Your task to perform on an android device: toggle priority inbox in the gmail app Image 0: 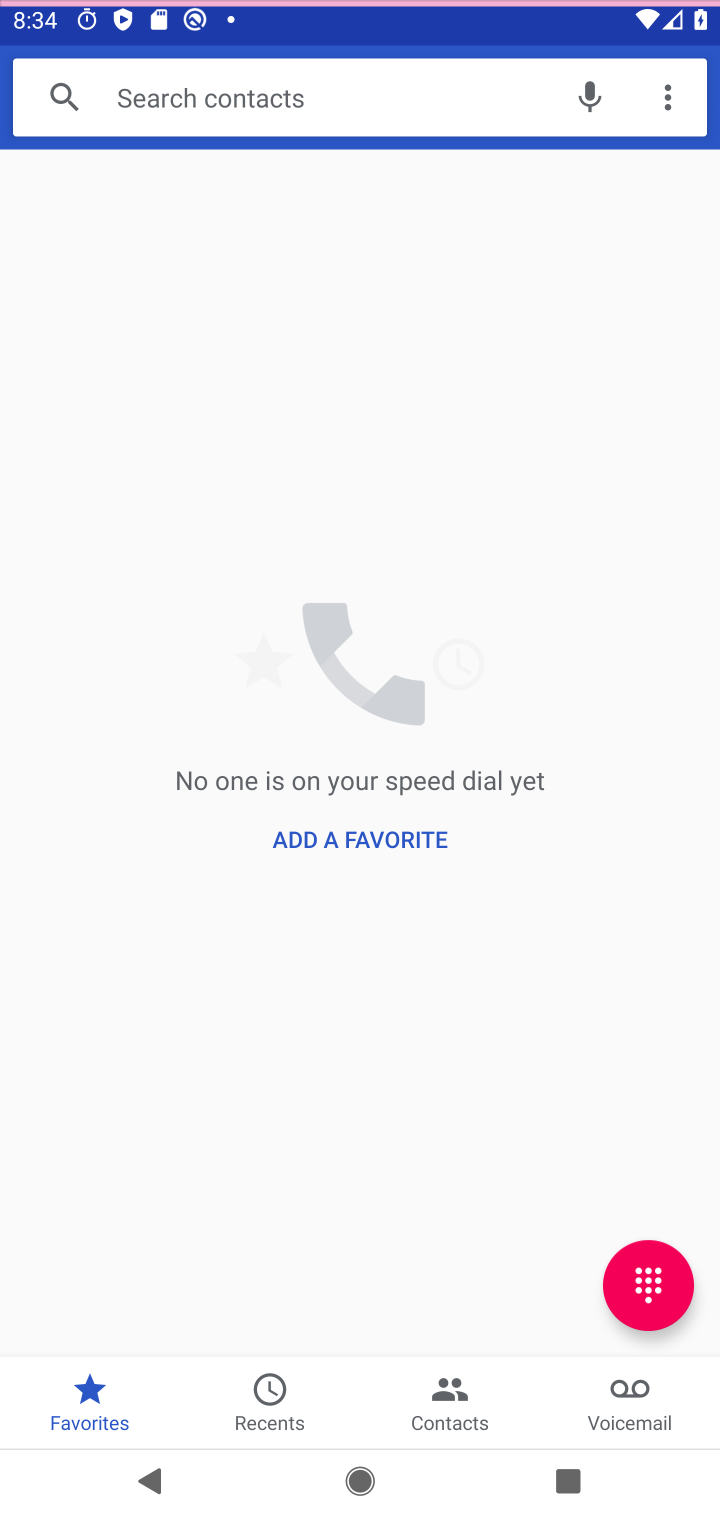
Step 0: press home button
Your task to perform on an android device: toggle priority inbox in the gmail app Image 1: 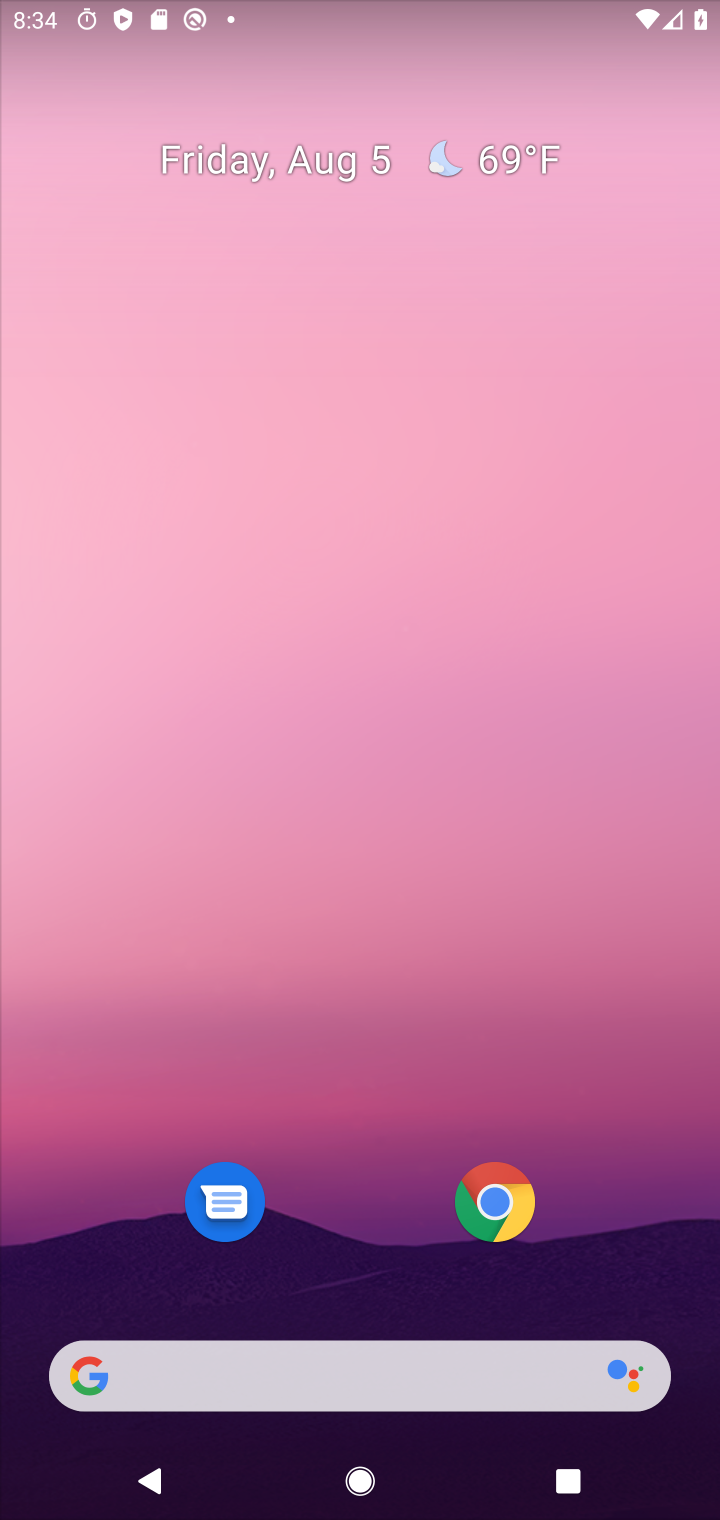
Step 1: drag from (340, 1121) to (354, 78)
Your task to perform on an android device: toggle priority inbox in the gmail app Image 2: 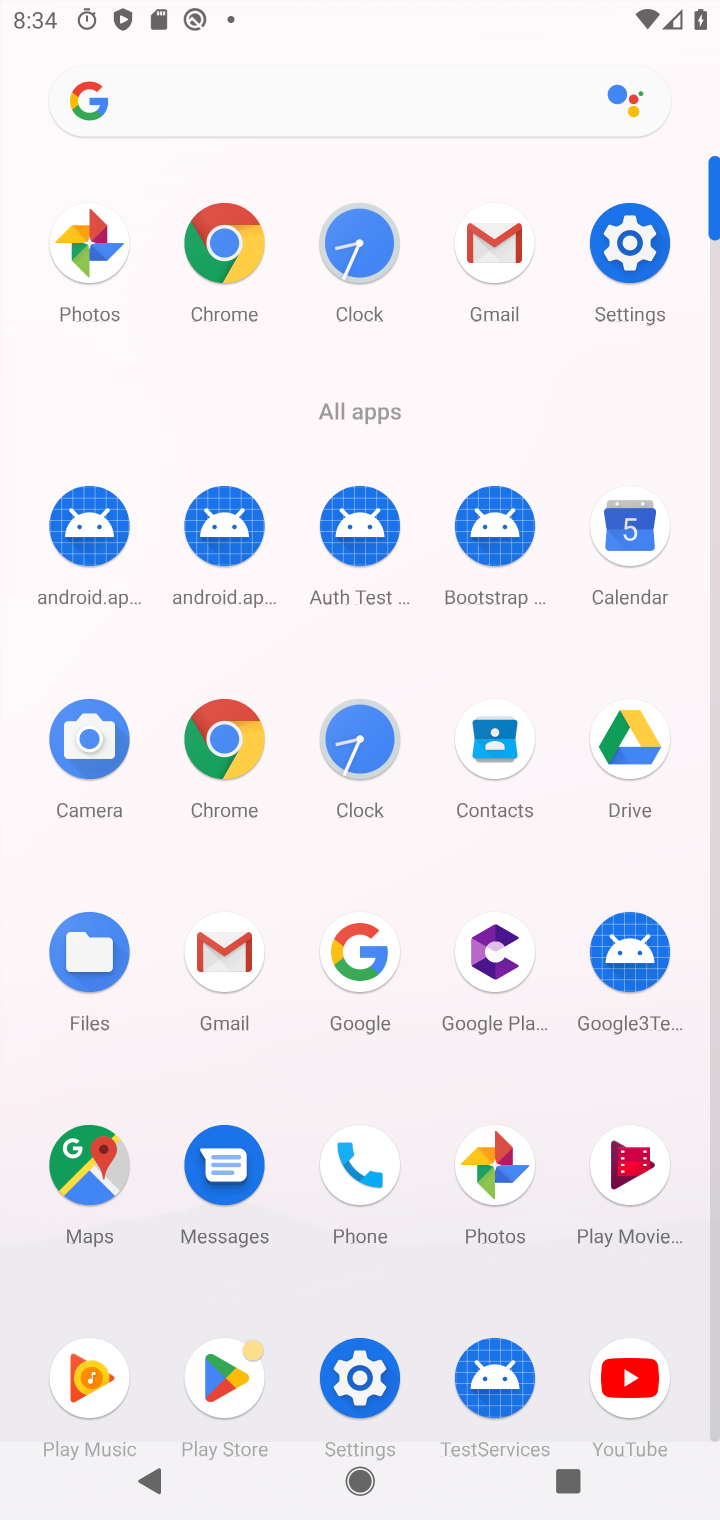
Step 2: click (213, 956)
Your task to perform on an android device: toggle priority inbox in the gmail app Image 3: 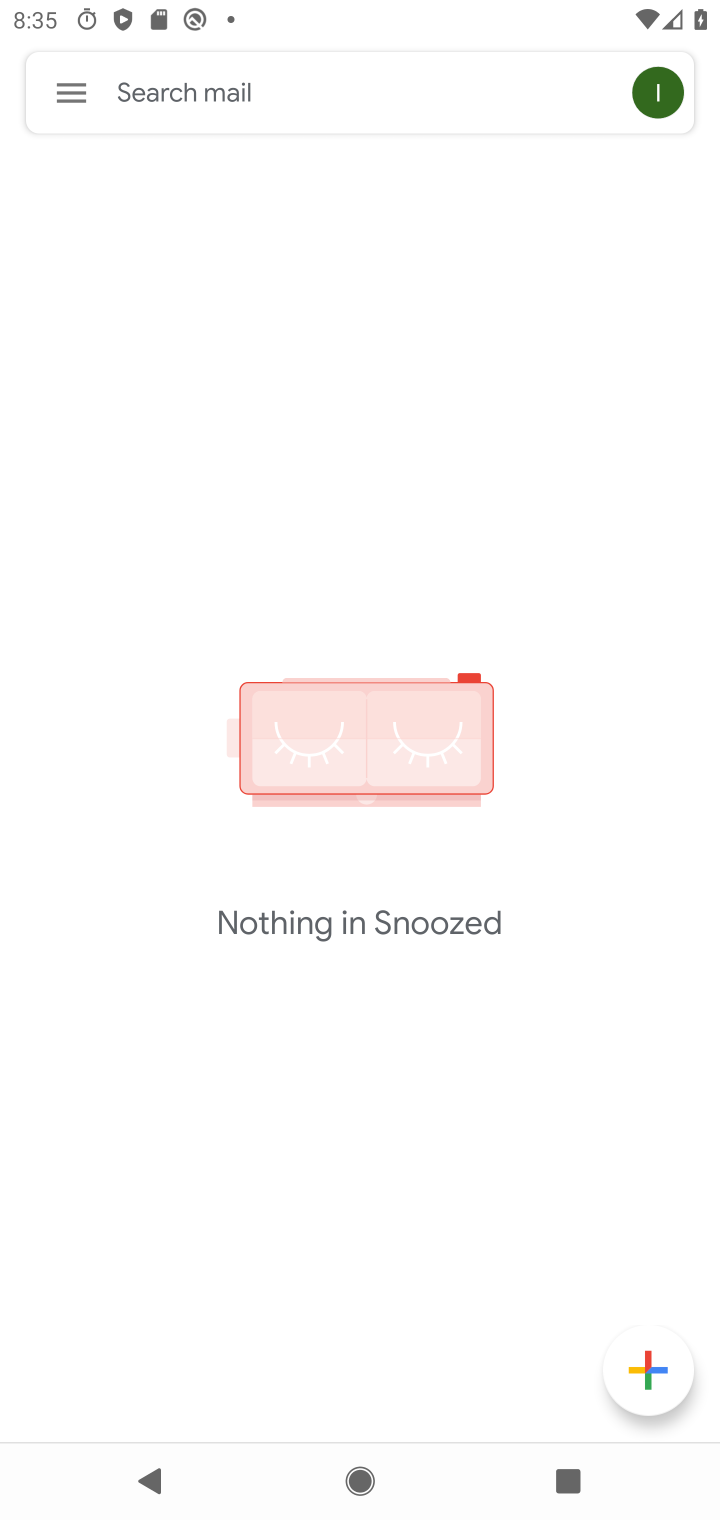
Step 3: click (80, 95)
Your task to perform on an android device: toggle priority inbox in the gmail app Image 4: 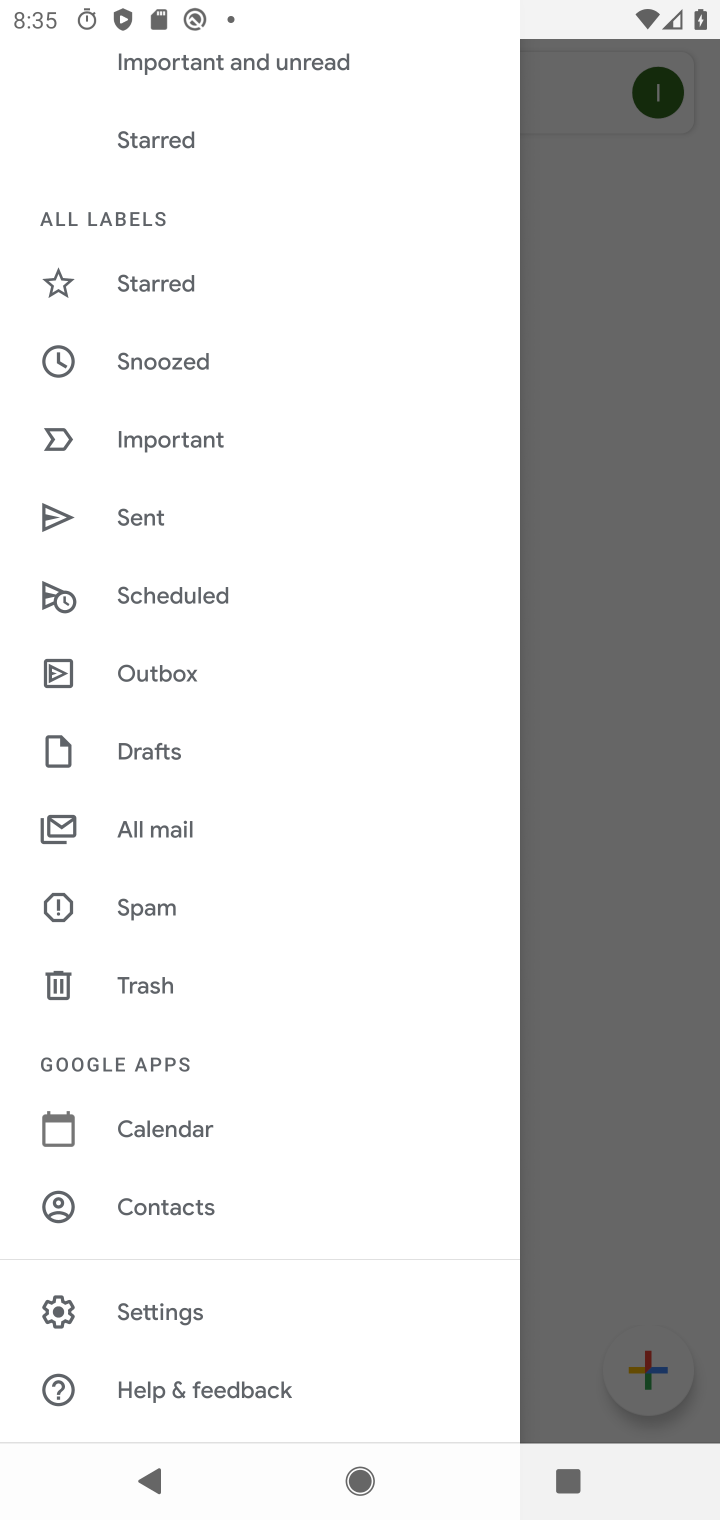
Step 4: click (185, 1282)
Your task to perform on an android device: toggle priority inbox in the gmail app Image 5: 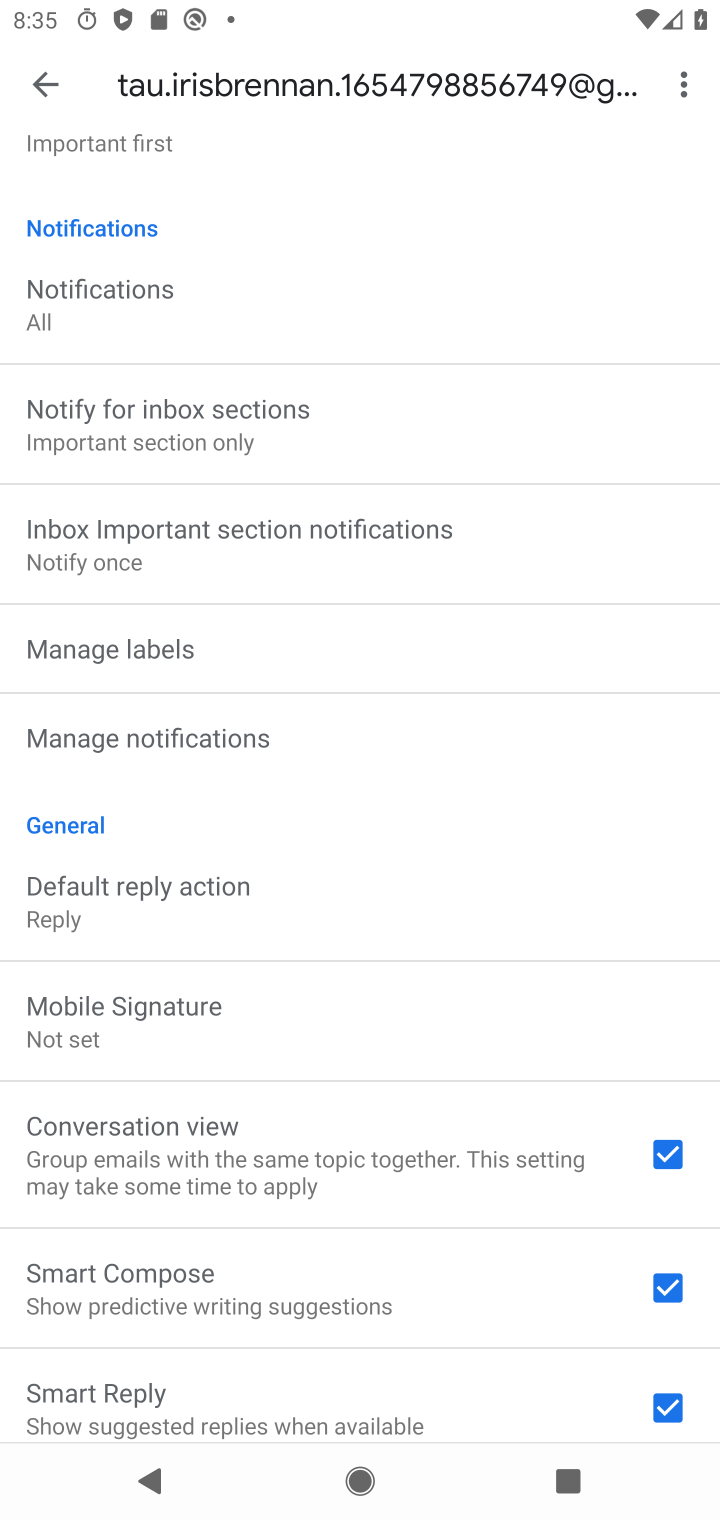
Step 5: drag from (185, 282) to (248, 643)
Your task to perform on an android device: toggle priority inbox in the gmail app Image 6: 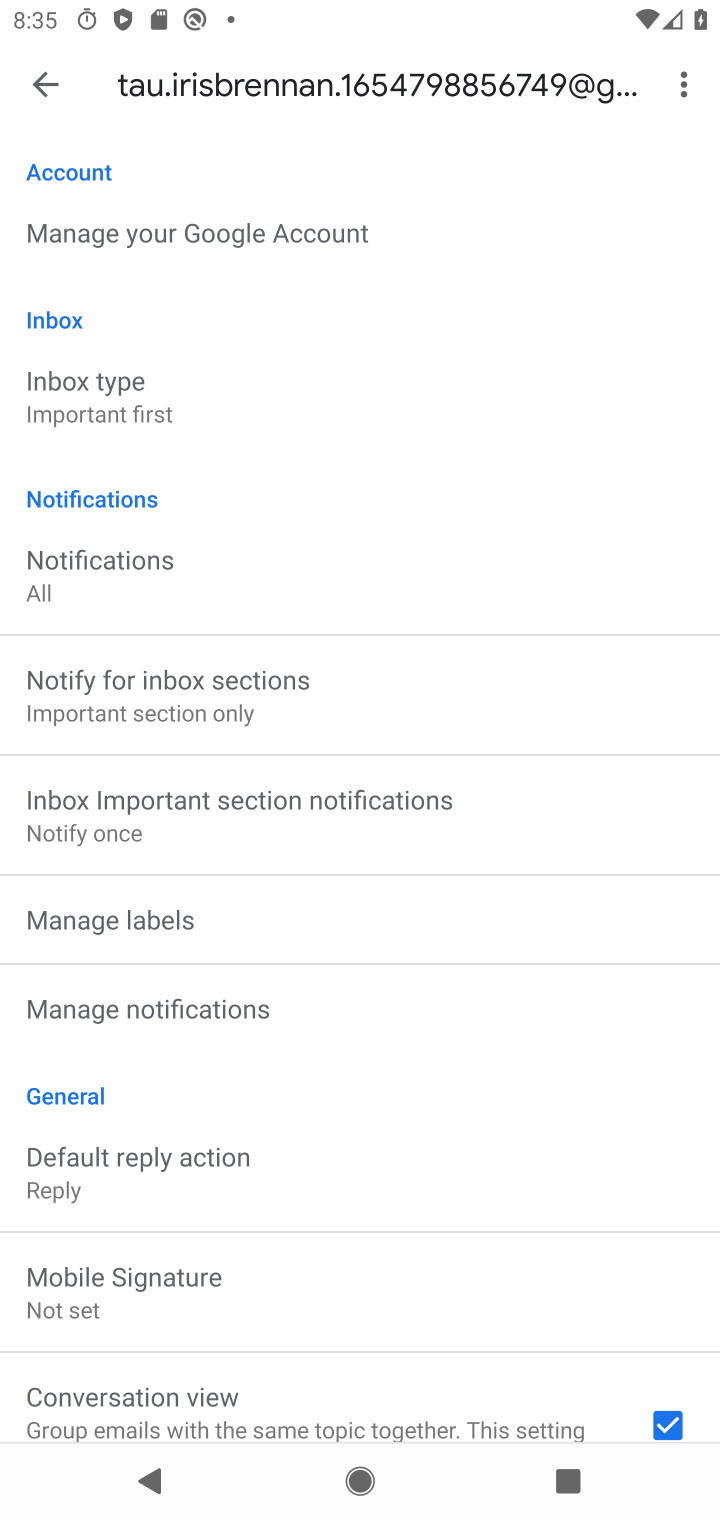
Step 6: click (141, 400)
Your task to perform on an android device: toggle priority inbox in the gmail app Image 7: 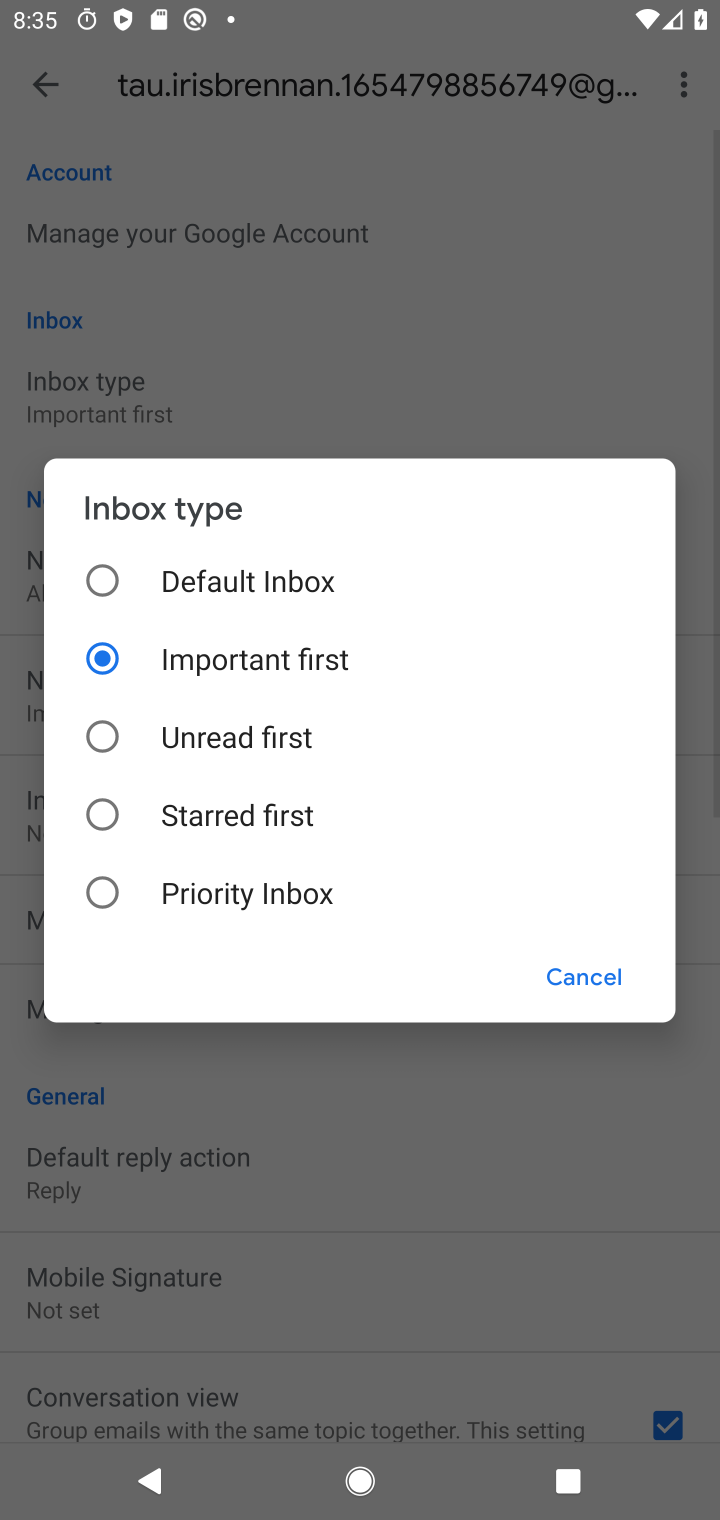
Step 7: click (227, 884)
Your task to perform on an android device: toggle priority inbox in the gmail app Image 8: 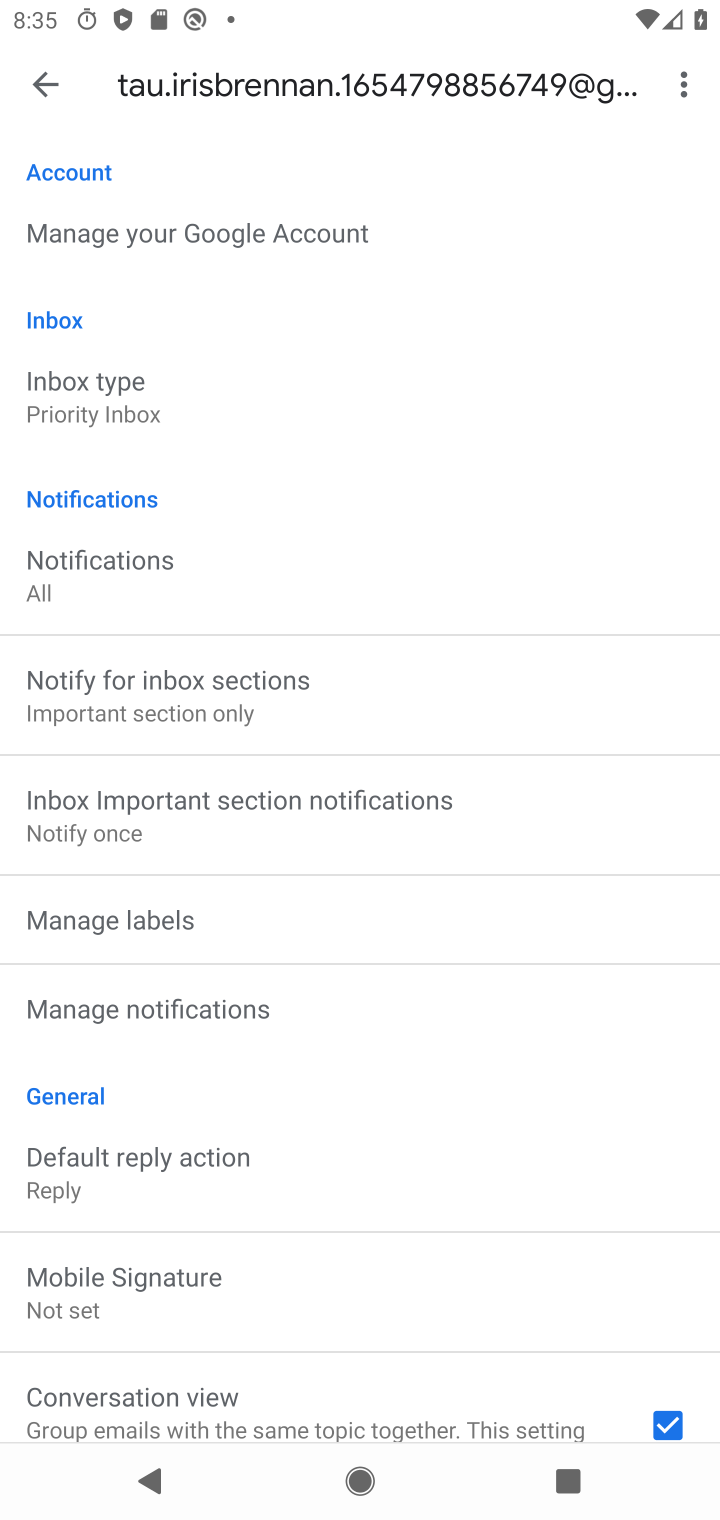
Step 8: task complete